Your task to perform on an android device: install app "Google Keep" Image 0: 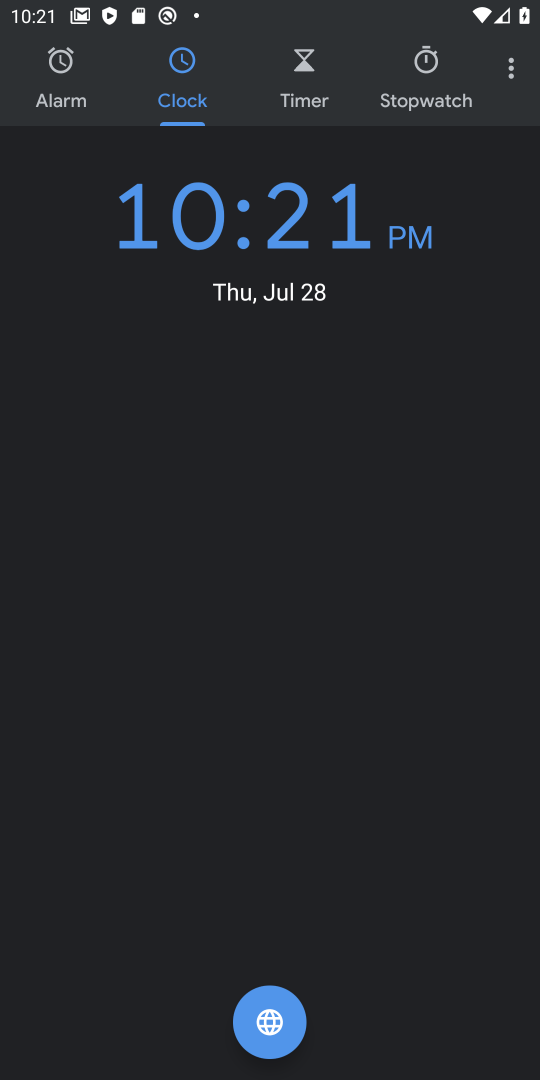
Step 0: press home button
Your task to perform on an android device: install app "Google Keep" Image 1: 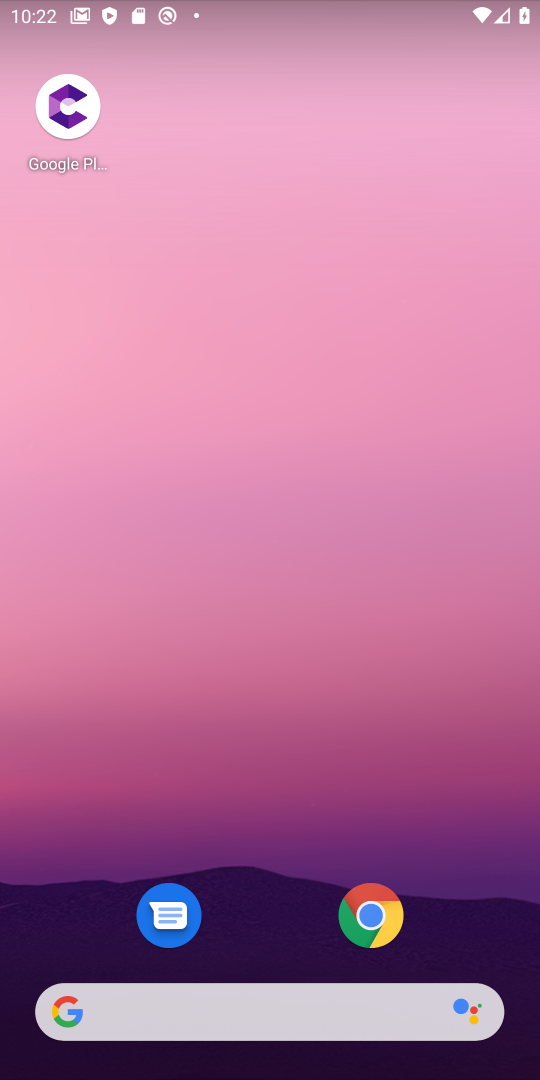
Step 1: drag from (347, 724) to (375, 49)
Your task to perform on an android device: install app "Google Keep" Image 2: 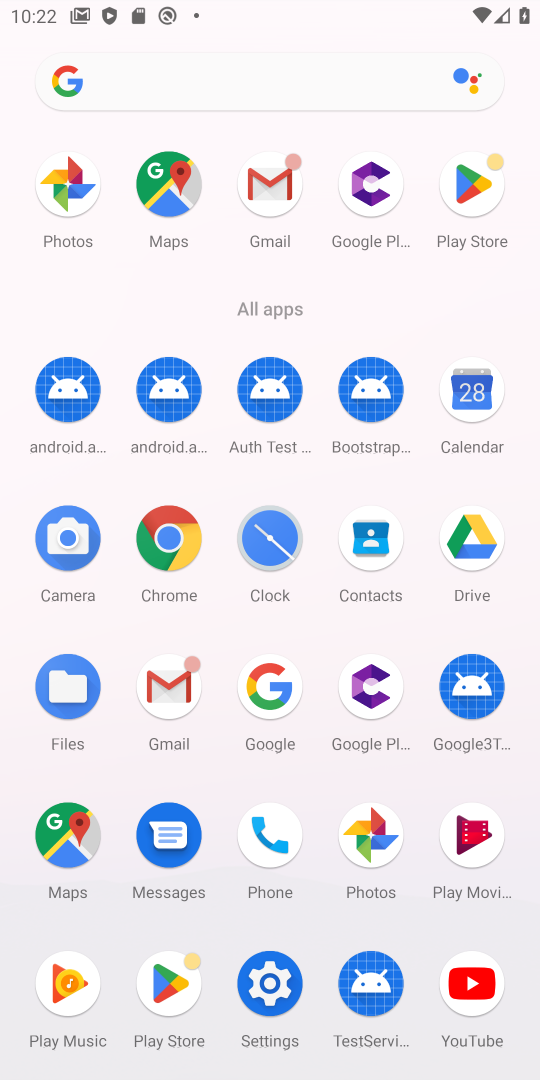
Step 2: click (167, 985)
Your task to perform on an android device: install app "Google Keep" Image 3: 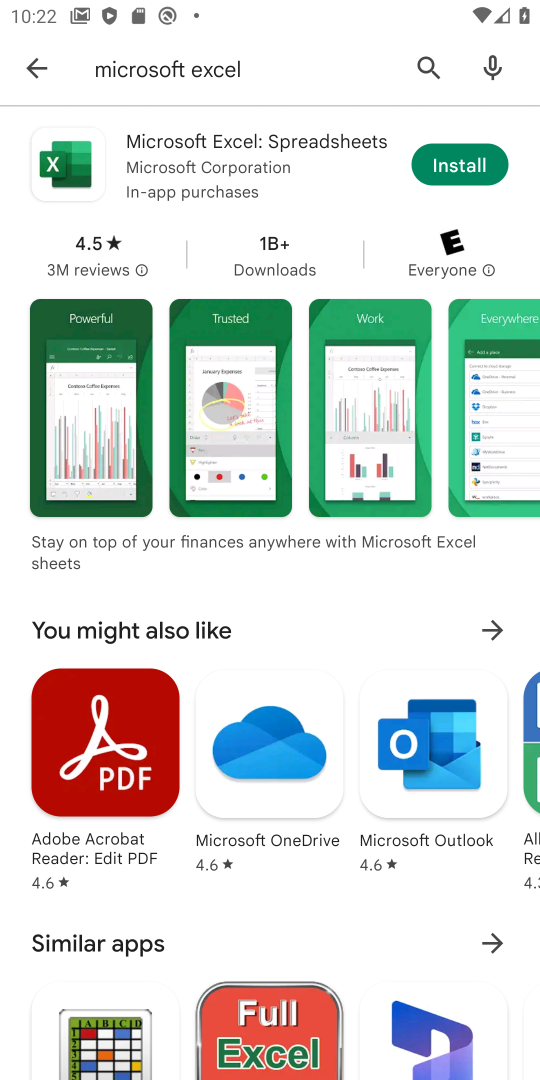
Step 3: click (36, 66)
Your task to perform on an android device: install app "Google Keep" Image 4: 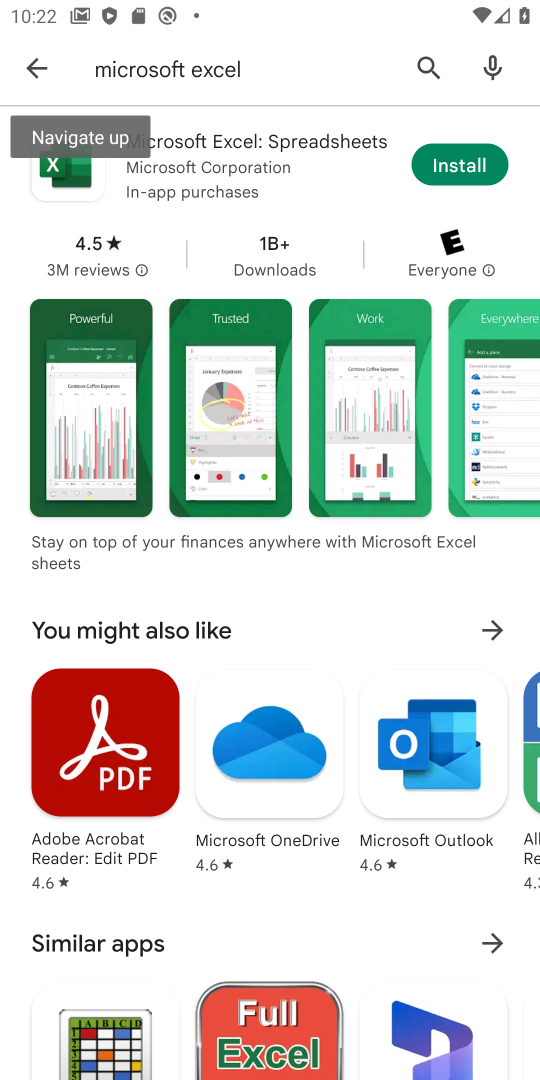
Step 4: click (36, 66)
Your task to perform on an android device: install app "Google Keep" Image 5: 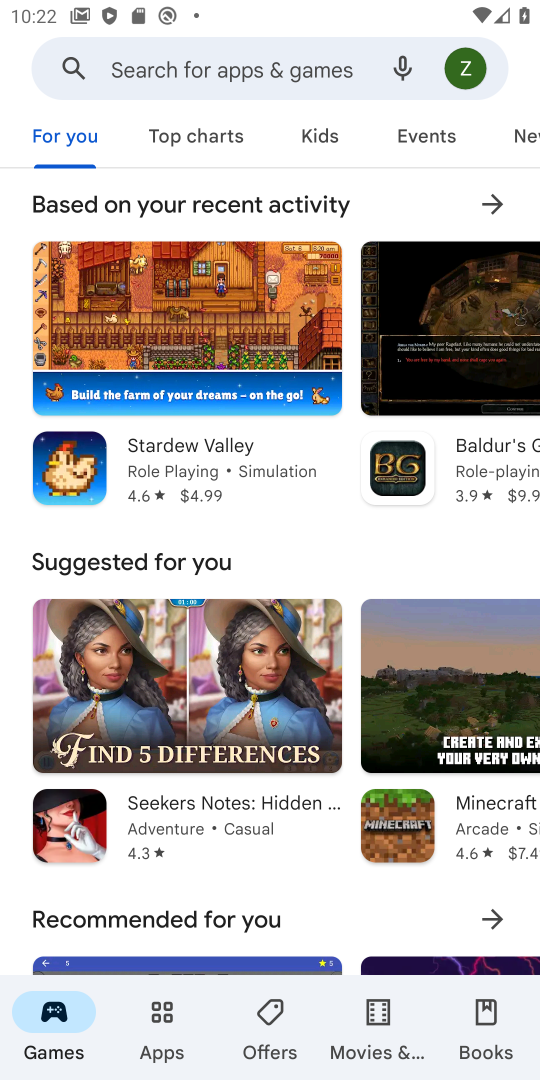
Step 5: click (243, 67)
Your task to perform on an android device: install app "Google Keep" Image 6: 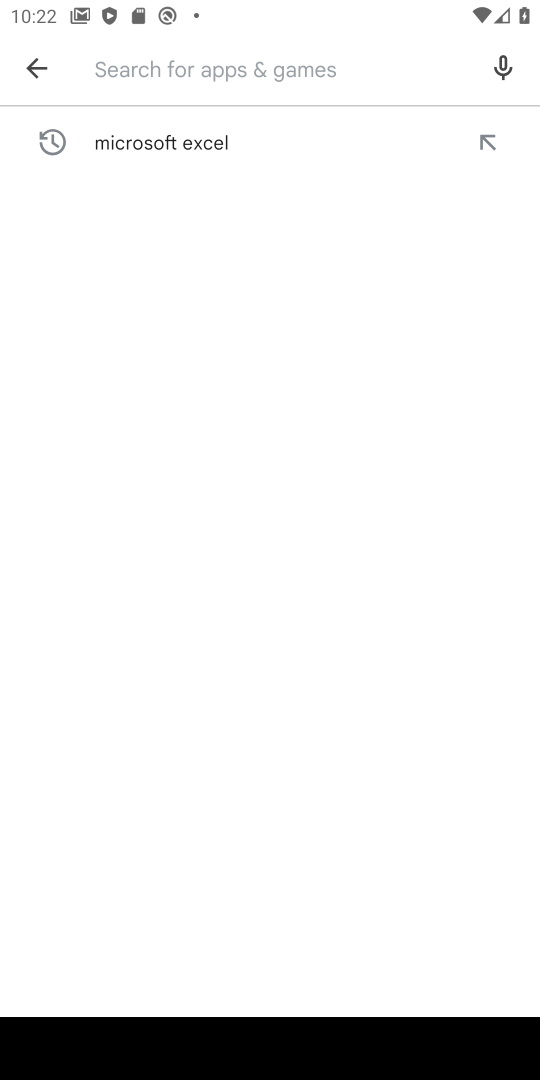
Step 6: type "Google Keep""
Your task to perform on an android device: install app "Google Keep" Image 7: 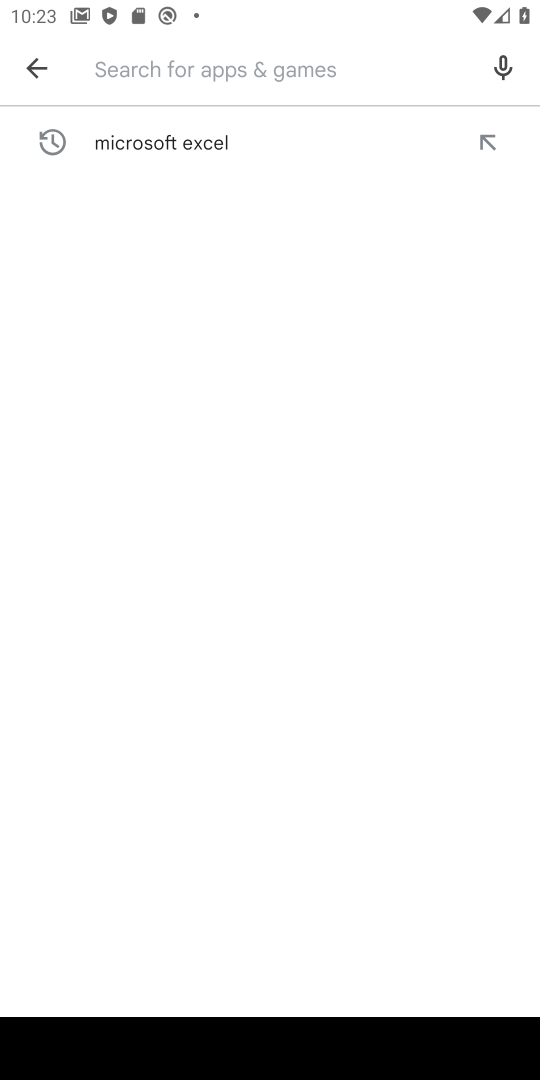
Step 7: type "Google Keep"
Your task to perform on an android device: install app "Google Keep" Image 8: 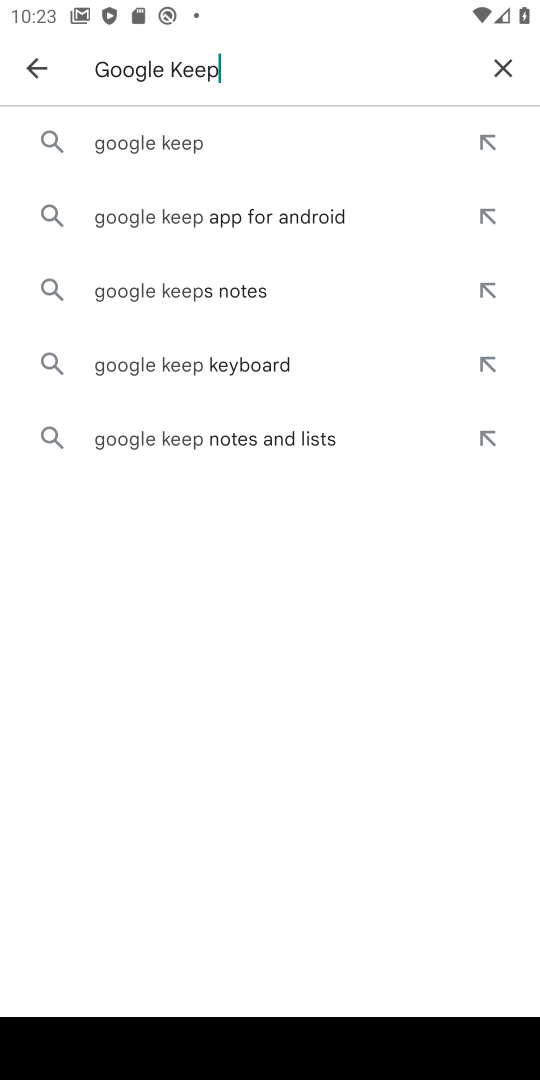
Step 8: click (170, 154)
Your task to perform on an android device: install app "Google Keep" Image 9: 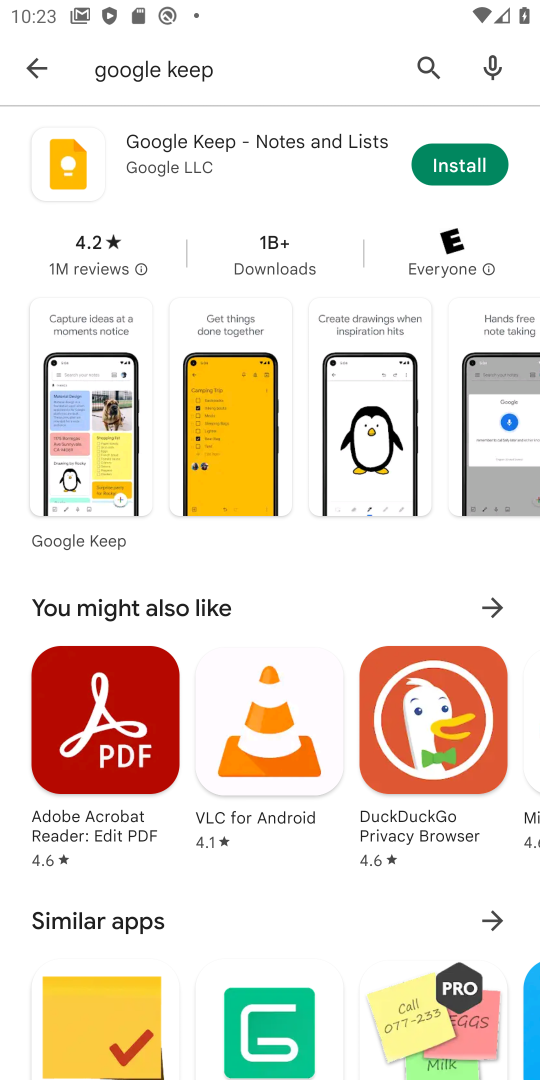
Step 9: click (460, 160)
Your task to perform on an android device: install app "Google Keep" Image 10: 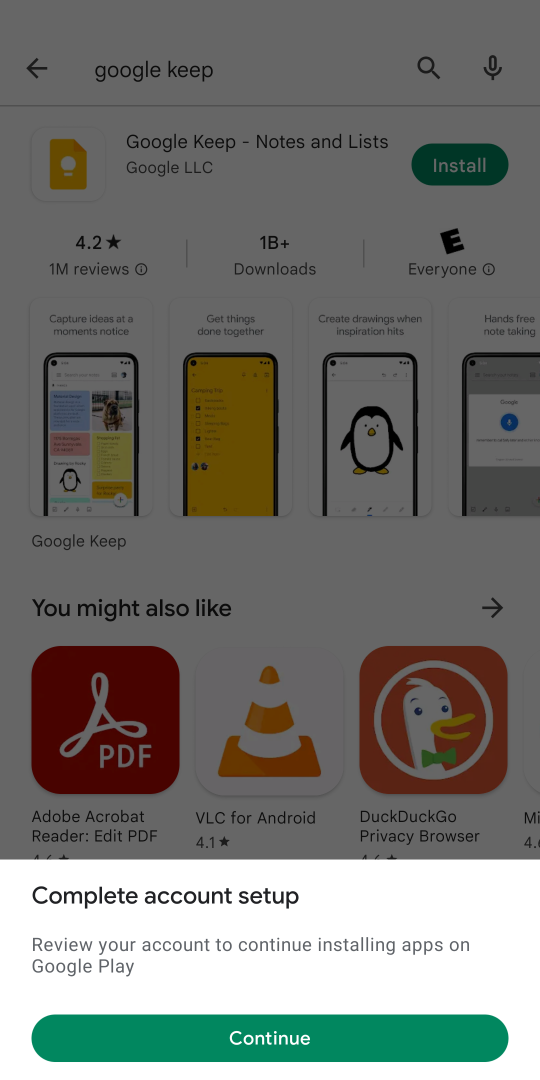
Step 10: click (114, 1043)
Your task to perform on an android device: install app "Google Keep" Image 11: 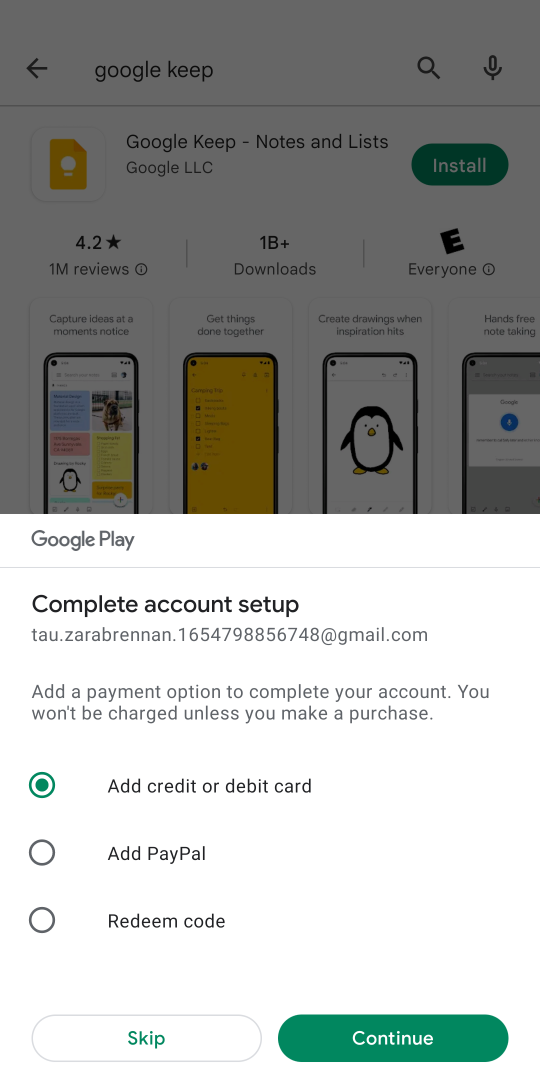
Step 11: click (126, 1036)
Your task to perform on an android device: install app "Google Keep" Image 12: 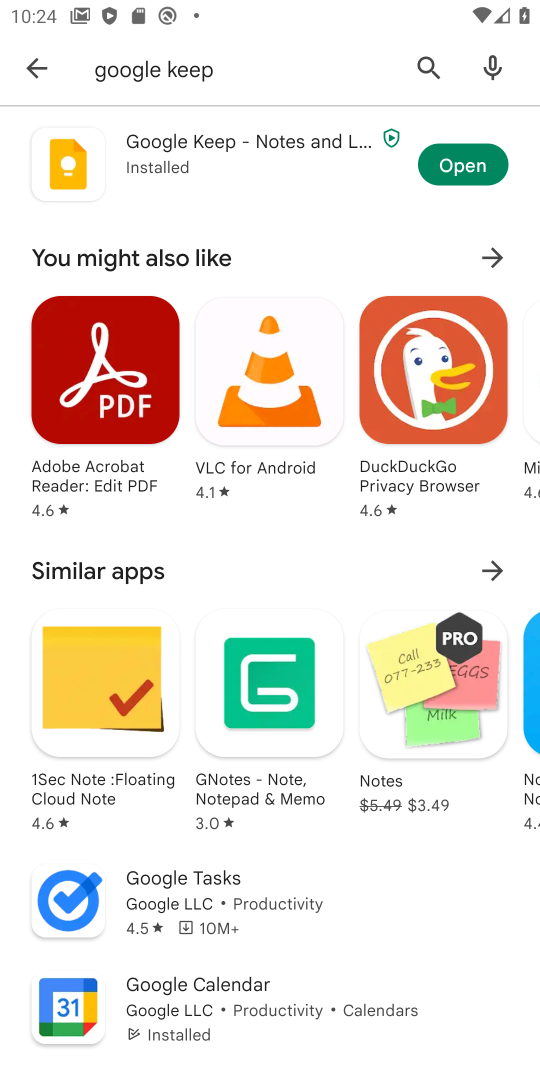
Step 12: task complete